Your task to perform on an android device: turn off picture-in-picture Image 0: 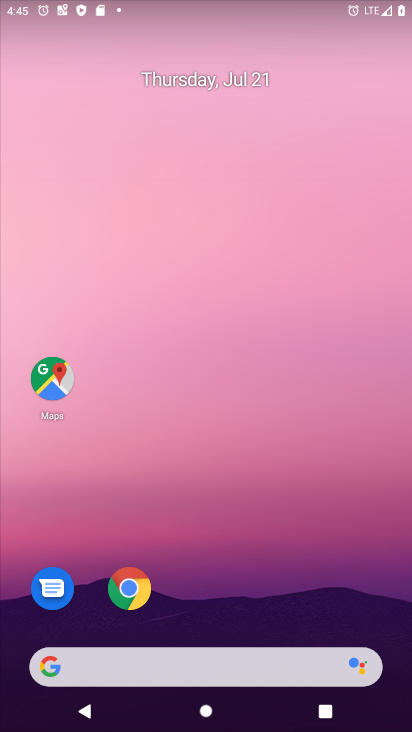
Step 0: press home button
Your task to perform on an android device: turn off picture-in-picture Image 1: 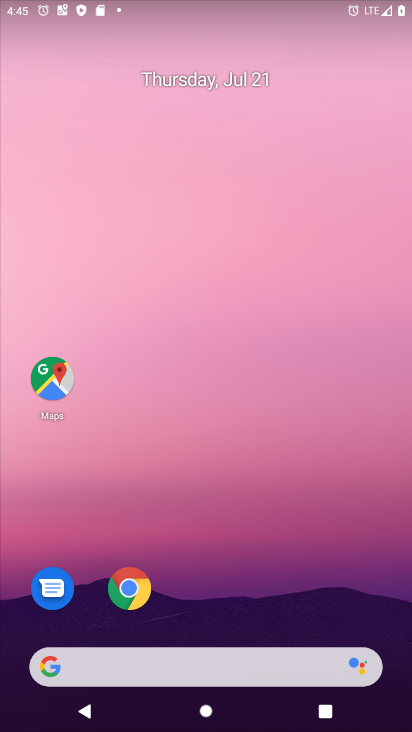
Step 1: click (133, 584)
Your task to perform on an android device: turn off picture-in-picture Image 2: 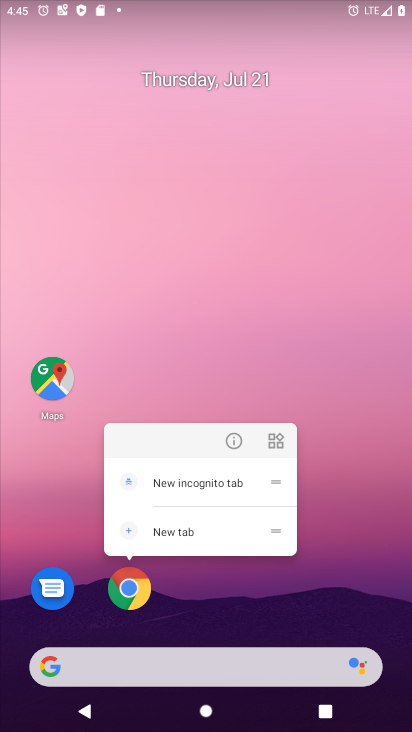
Step 2: click (240, 446)
Your task to perform on an android device: turn off picture-in-picture Image 3: 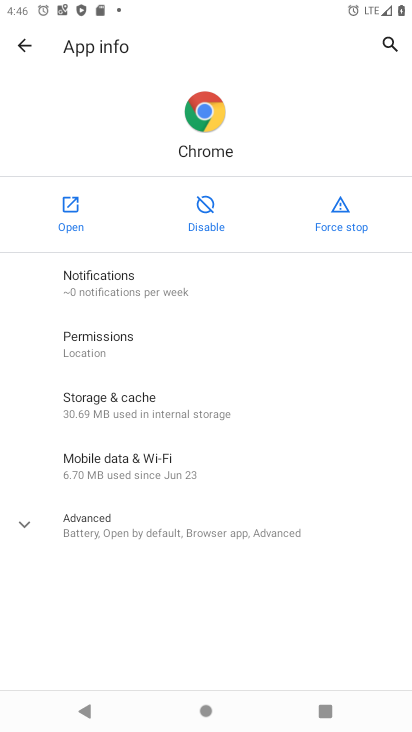
Step 3: click (97, 542)
Your task to perform on an android device: turn off picture-in-picture Image 4: 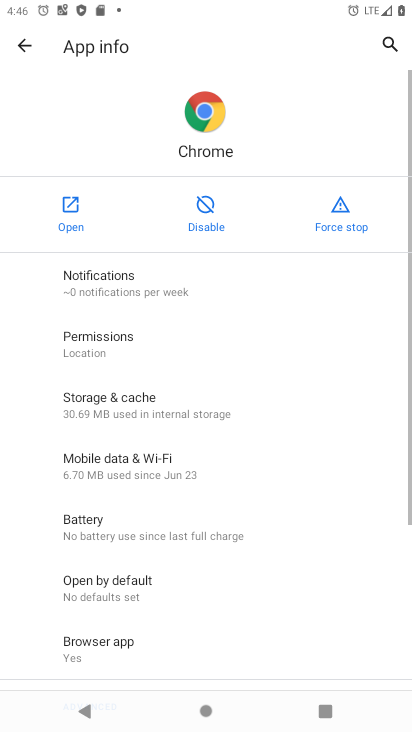
Step 4: drag from (97, 603) to (106, 325)
Your task to perform on an android device: turn off picture-in-picture Image 5: 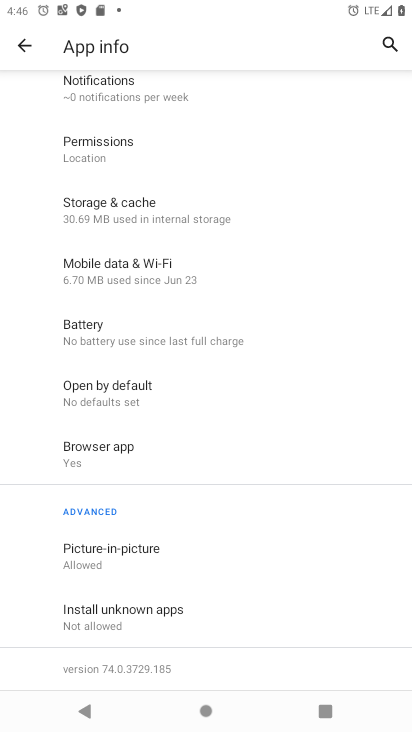
Step 5: click (110, 562)
Your task to perform on an android device: turn off picture-in-picture Image 6: 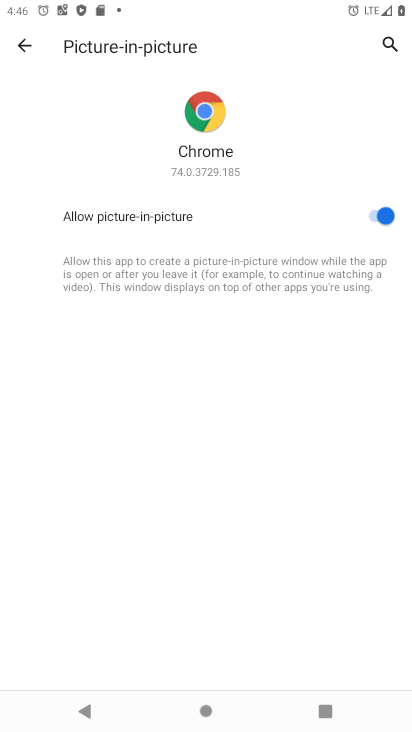
Step 6: click (343, 237)
Your task to perform on an android device: turn off picture-in-picture Image 7: 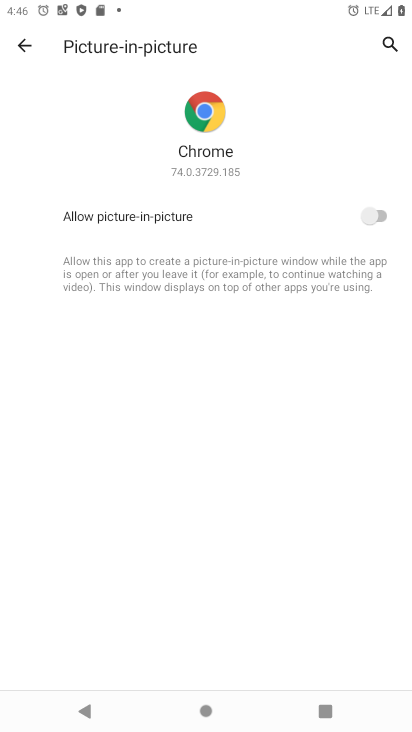
Step 7: task complete